Your task to perform on an android device: Go to internet settings Image 0: 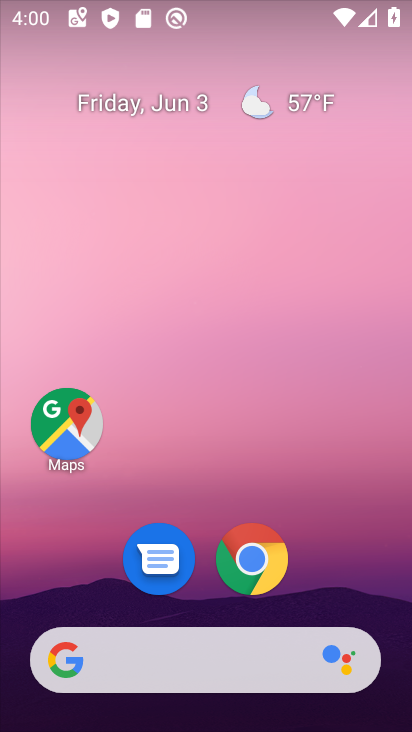
Step 0: press home button
Your task to perform on an android device: Go to internet settings Image 1: 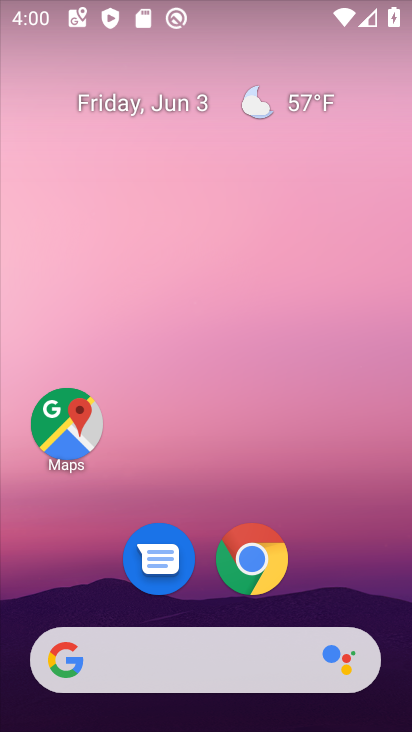
Step 1: drag from (329, 585) to (323, 88)
Your task to perform on an android device: Go to internet settings Image 2: 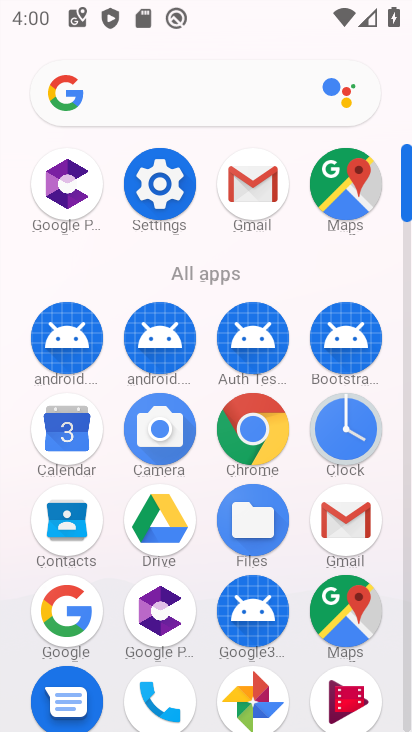
Step 2: click (152, 183)
Your task to perform on an android device: Go to internet settings Image 3: 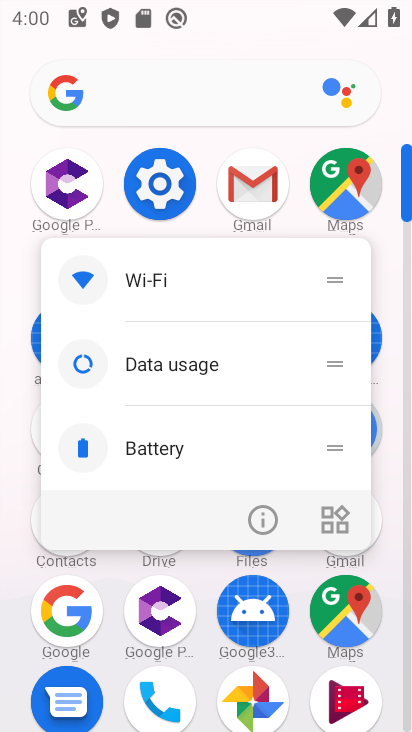
Step 3: click (152, 183)
Your task to perform on an android device: Go to internet settings Image 4: 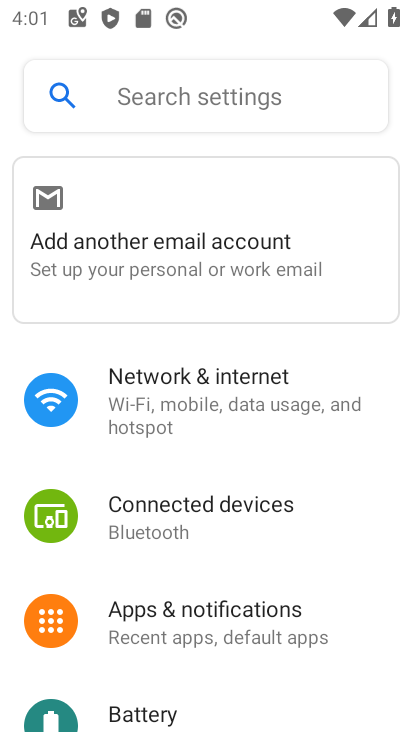
Step 4: click (247, 396)
Your task to perform on an android device: Go to internet settings Image 5: 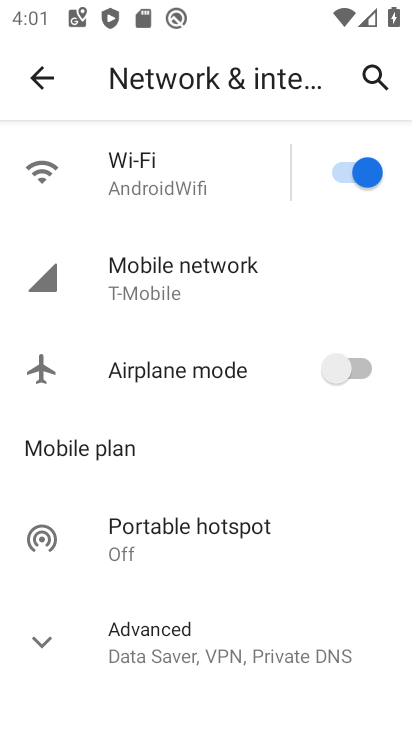
Step 5: task complete